Your task to perform on an android device: change keyboard looks Image 0: 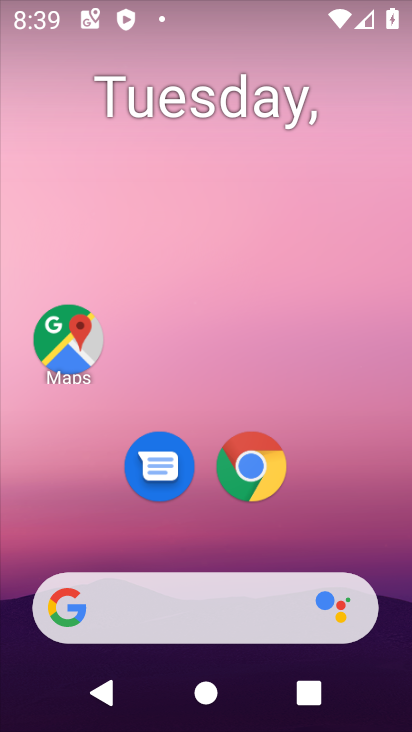
Step 0: drag from (204, 542) to (82, 5)
Your task to perform on an android device: change keyboard looks Image 1: 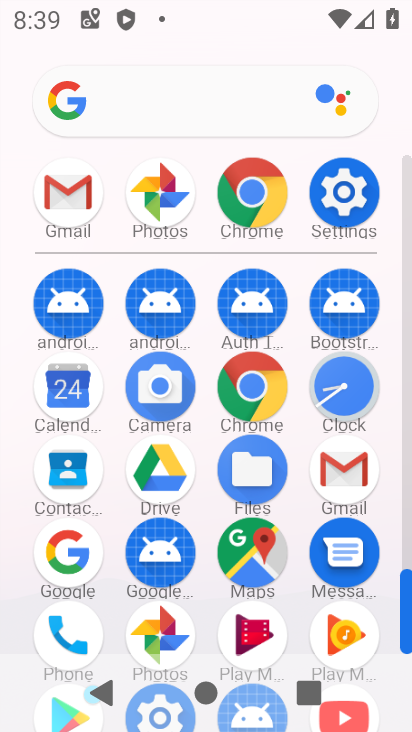
Step 1: click (334, 209)
Your task to perform on an android device: change keyboard looks Image 2: 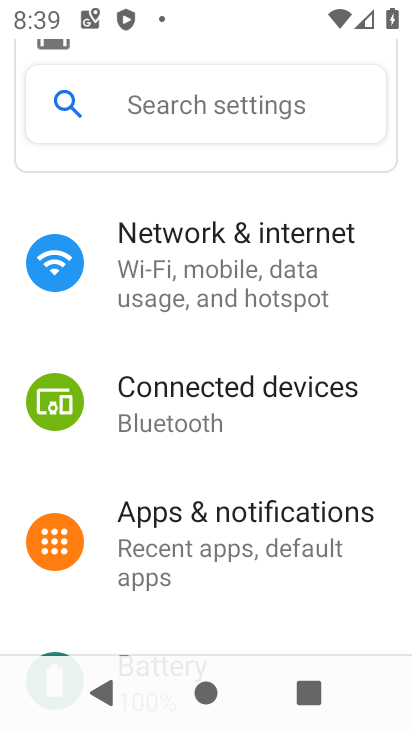
Step 2: drag from (228, 504) to (250, 133)
Your task to perform on an android device: change keyboard looks Image 3: 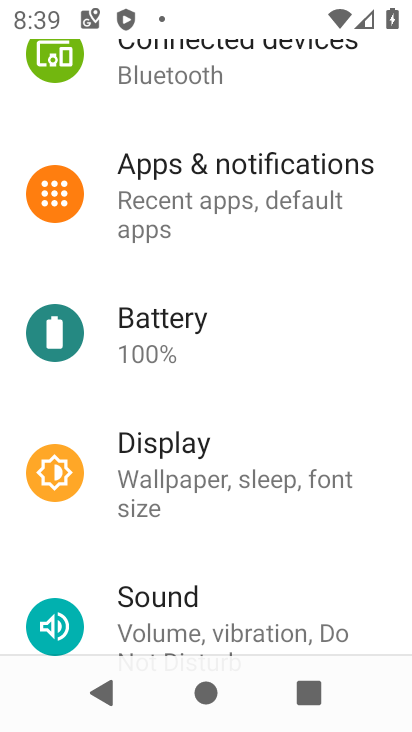
Step 3: drag from (209, 535) to (258, 139)
Your task to perform on an android device: change keyboard looks Image 4: 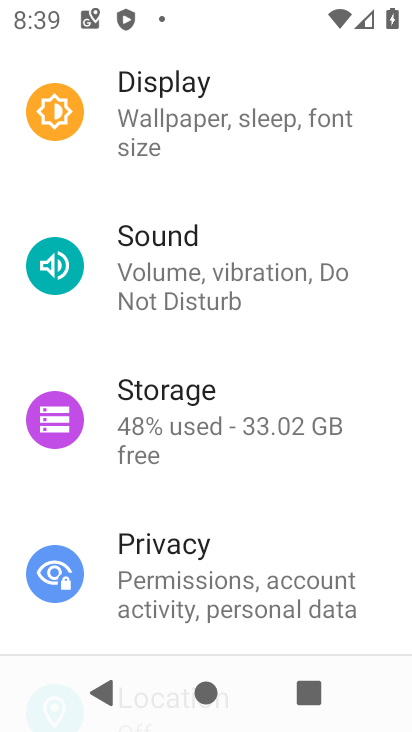
Step 4: drag from (214, 520) to (232, 307)
Your task to perform on an android device: change keyboard looks Image 5: 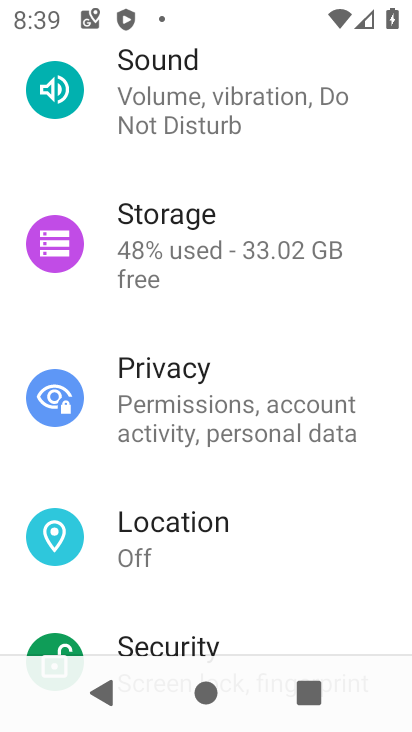
Step 5: drag from (217, 609) to (248, 189)
Your task to perform on an android device: change keyboard looks Image 6: 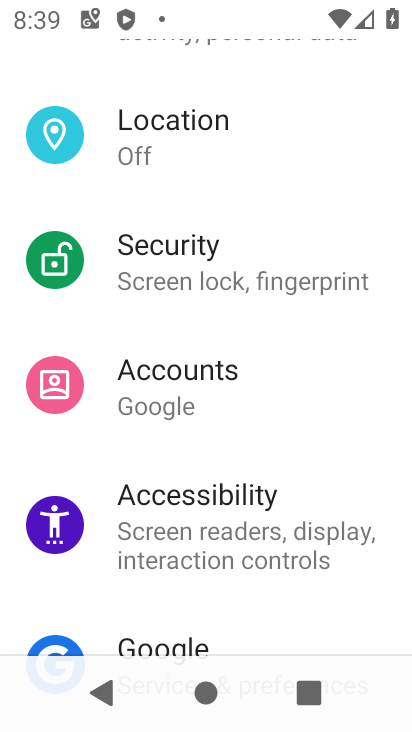
Step 6: drag from (219, 574) to (247, 133)
Your task to perform on an android device: change keyboard looks Image 7: 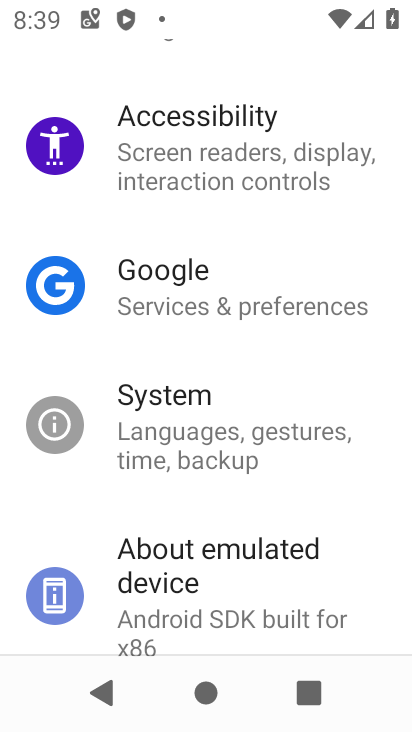
Step 7: drag from (202, 589) to (227, 73)
Your task to perform on an android device: change keyboard looks Image 8: 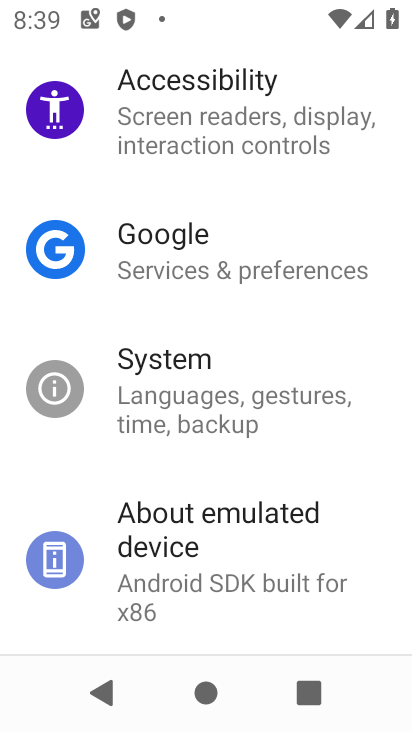
Step 8: click (188, 382)
Your task to perform on an android device: change keyboard looks Image 9: 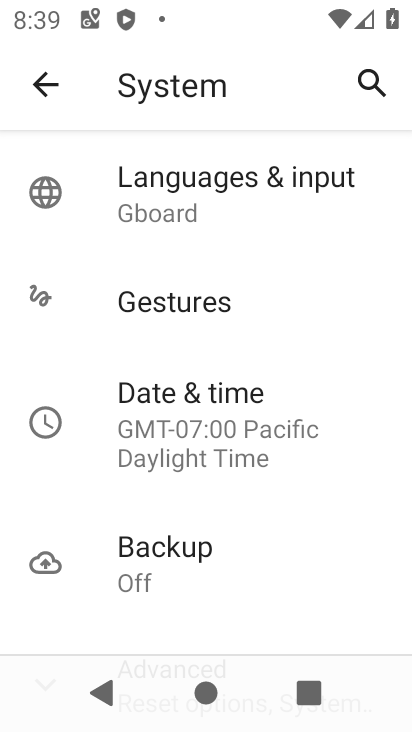
Step 9: click (205, 181)
Your task to perform on an android device: change keyboard looks Image 10: 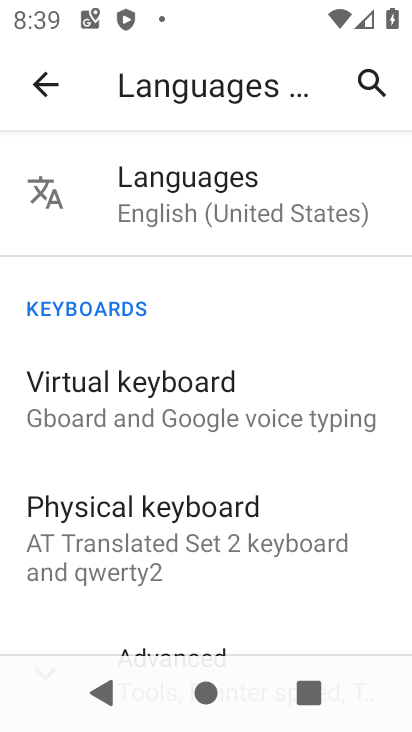
Step 10: click (139, 395)
Your task to perform on an android device: change keyboard looks Image 11: 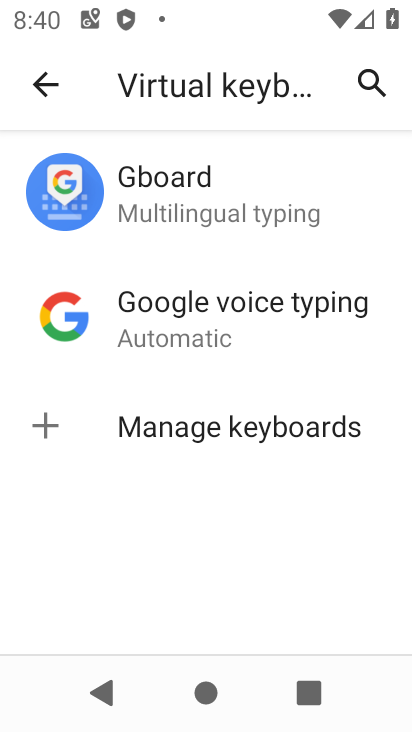
Step 11: click (169, 201)
Your task to perform on an android device: change keyboard looks Image 12: 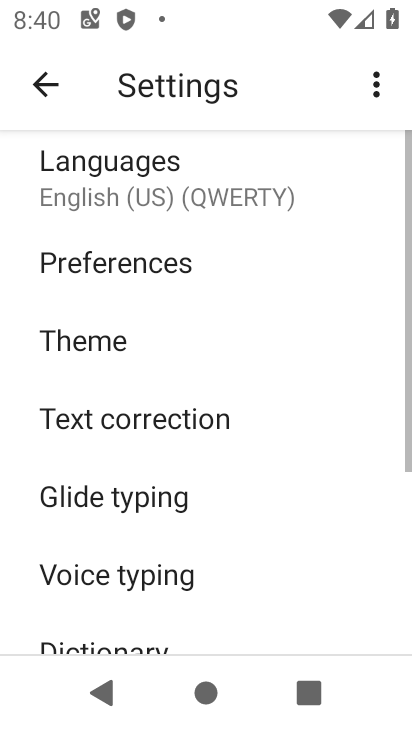
Step 12: click (131, 348)
Your task to perform on an android device: change keyboard looks Image 13: 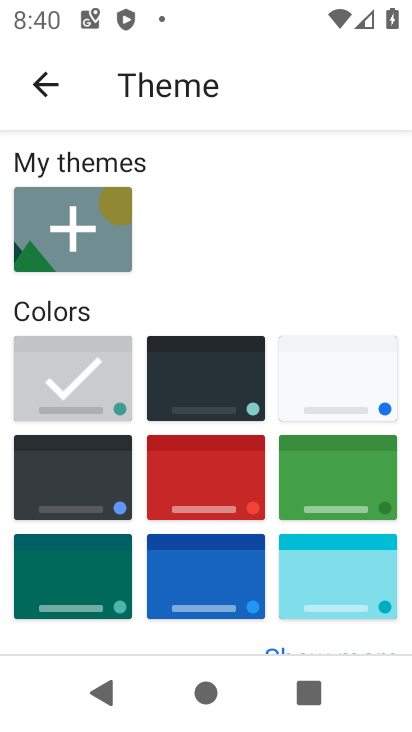
Step 13: click (221, 397)
Your task to perform on an android device: change keyboard looks Image 14: 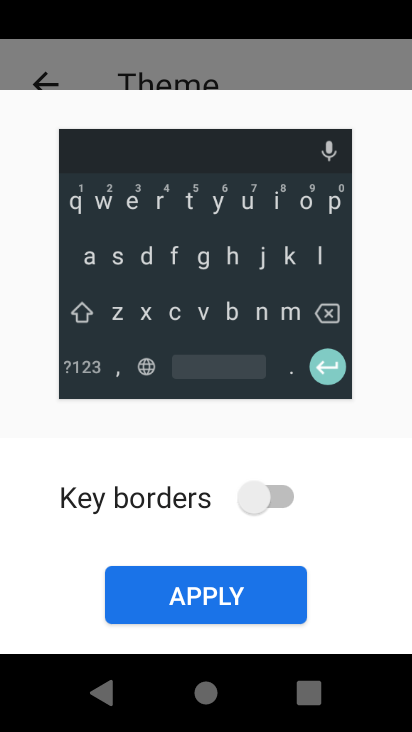
Step 14: click (177, 603)
Your task to perform on an android device: change keyboard looks Image 15: 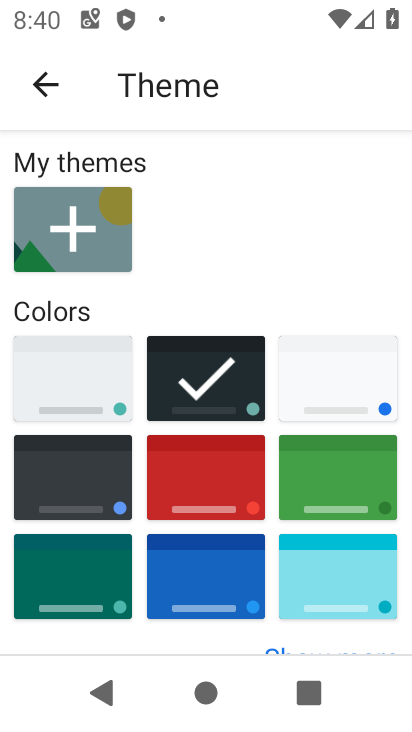
Step 15: task complete